Your task to perform on an android device: Open Google Chrome and open the bookmarks view Image 0: 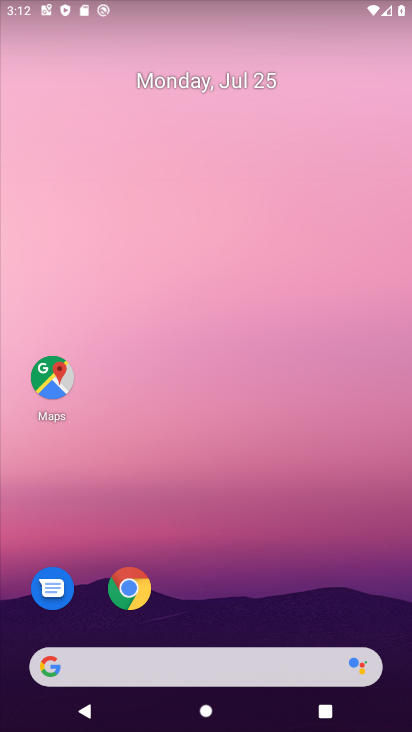
Step 0: drag from (302, 616) to (292, 150)
Your task to perform on an android device: Open Google Chrome and open the bookmarks view Image 1: 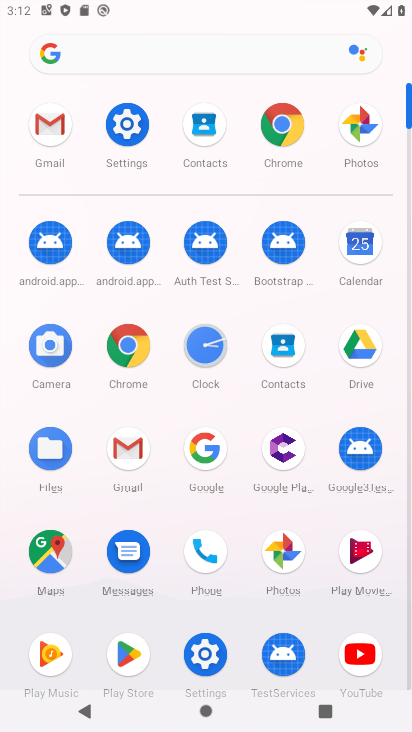
Step 1: click (128, 349)
Your task to perform on an android device: Open Google Chrome and open the bookmarks view Image 2: 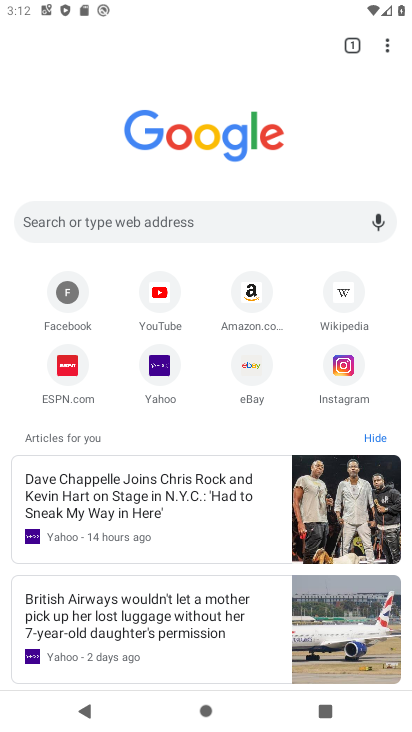
Step 2: task complete